Your task to perform on an android device: toggle sleep mode Image 0: 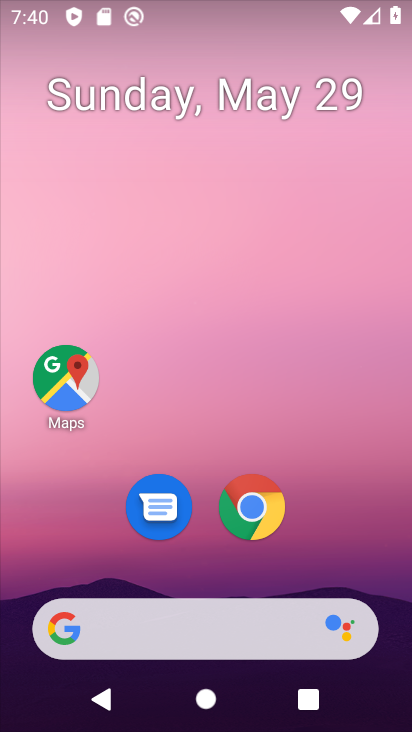
Step 0: drag from (365, 535) to (312, 131)
Your task to perform on an android device: toggle sleep mode Image 1: 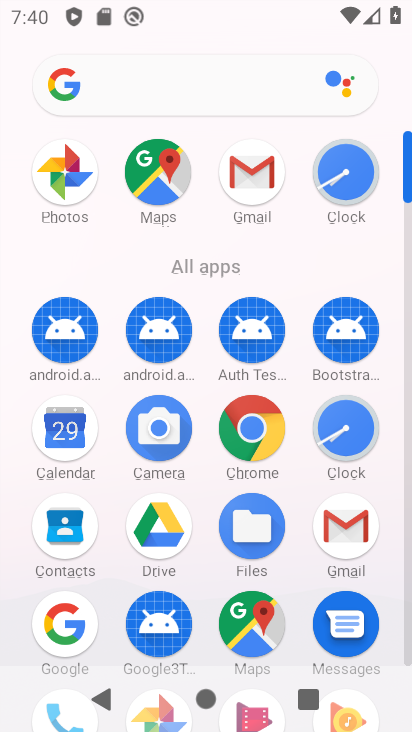
Step 1: drag from (286, 673) to (308, 255)
Your task to perform on an android device: toggle sleep mode Image 2: 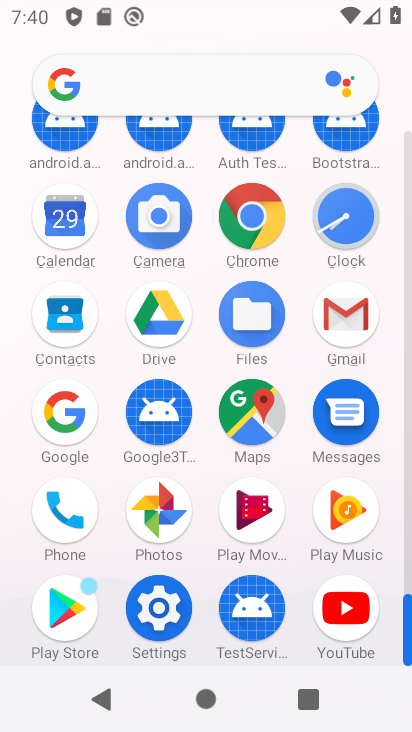
Step 2: click (169, 612)
Your task to perform on an android device: toggle sleep mode Image 3: 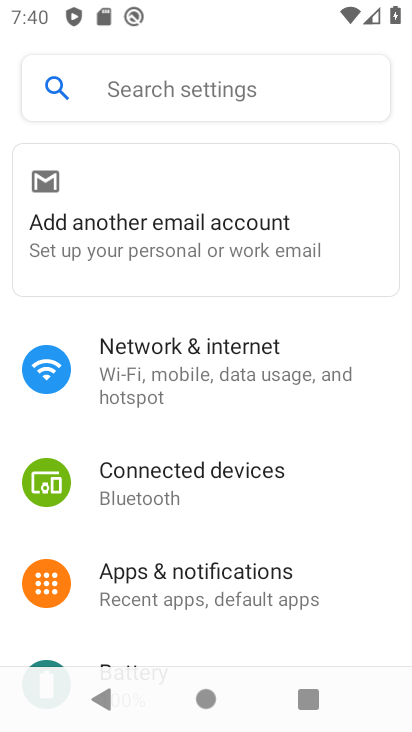
Step 3: drag from (162, 548) to (197, 256)
Your task to perform on an android device: toggle sleep mode Image 4: 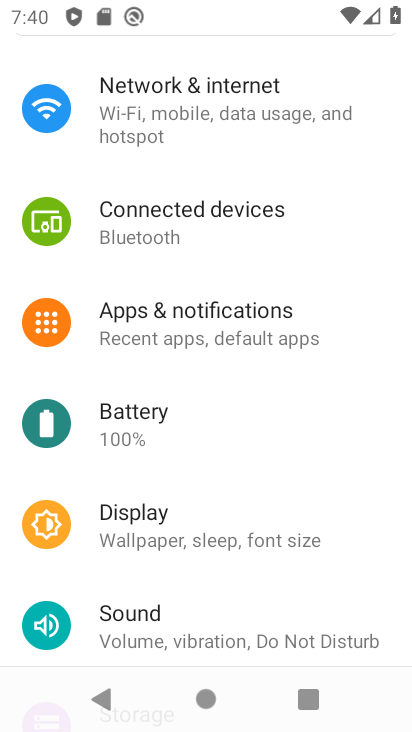
Step 4: click (177, 554)
Your task to perform on an android device: toggle sleep mode Image 5: 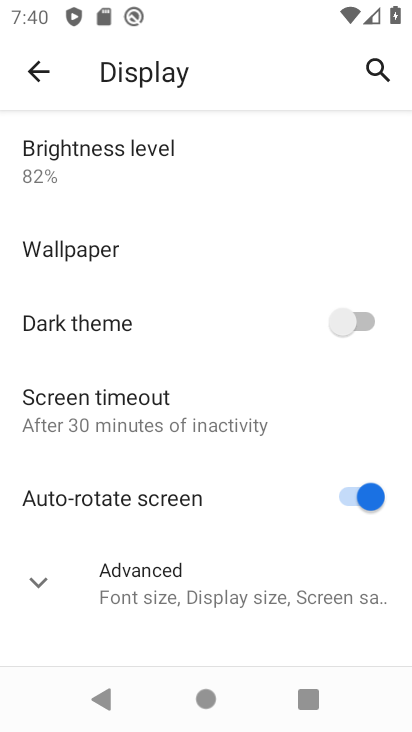
Step 5: drag from (230, 324) to (246, 277)
Your task to perform on an android device: toggle sleep mode Image 6: 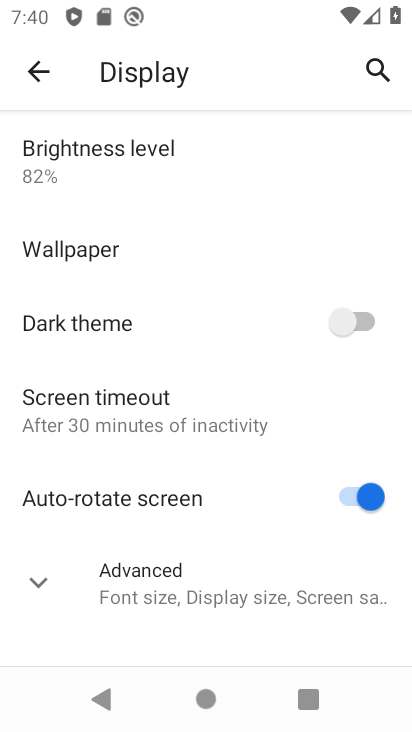
Step 6: click (173, 442)
Your task to perform on an android device: toggle sleep mode Image 7: 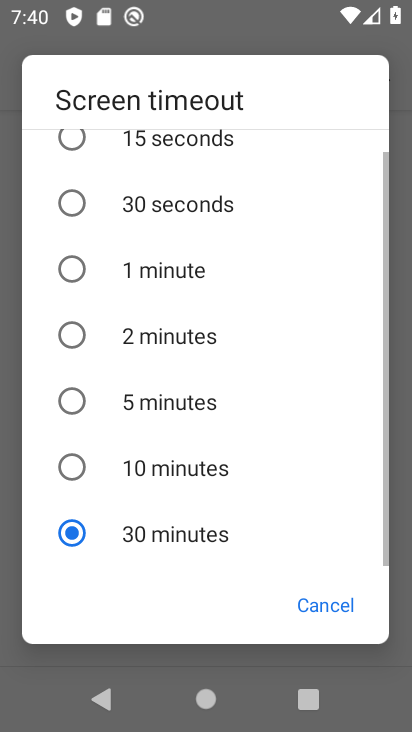
Step 7: click (164, 473)
Your task to perform on an android device: toggle sleep mode Image 8: 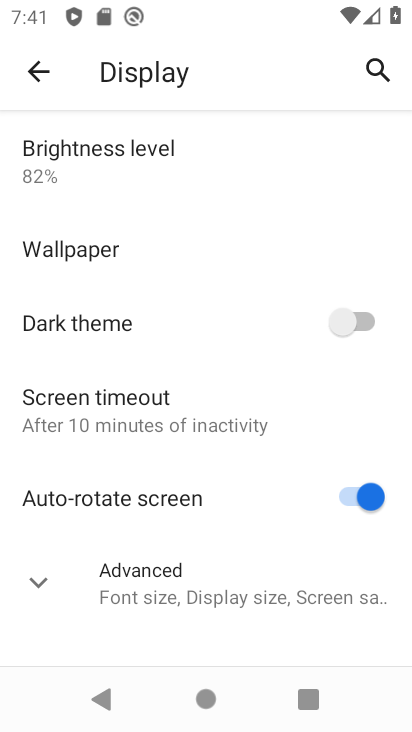
Step 8: task complete